Your task to perform on an android device: Open calendar and show me the third week of next month Image 0: 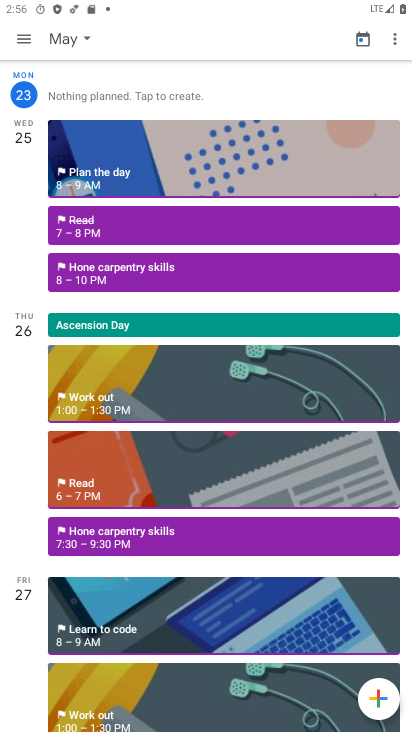
Step 0: press home button
Your task to perform on an android device: Open calendar and show me the third week of next month Image 1: 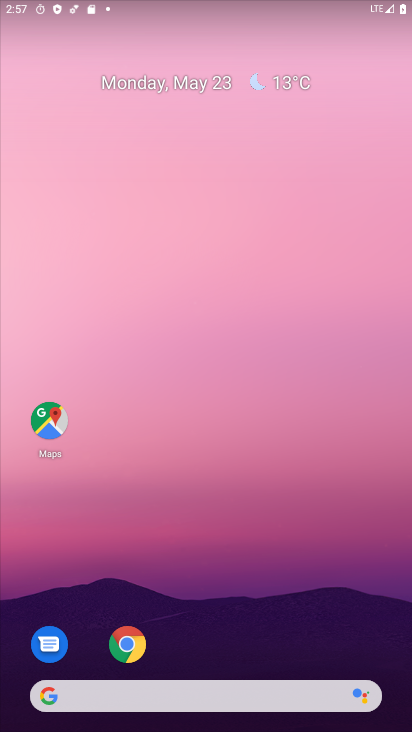
Step 1: drag from (175, 680) to (150, 167)
Your task to perform on an android device: Open calendar and show me the third week of next month Image 2: 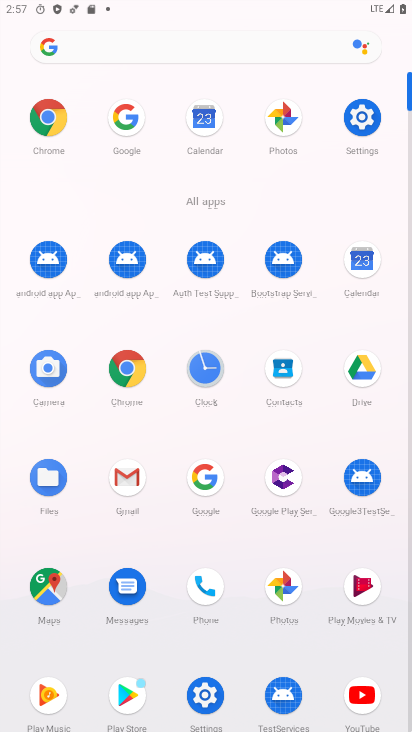
Step 2: click (363, 266)
Your task to perform on an android device: Open calendar and show me the third week of next month Image 3: 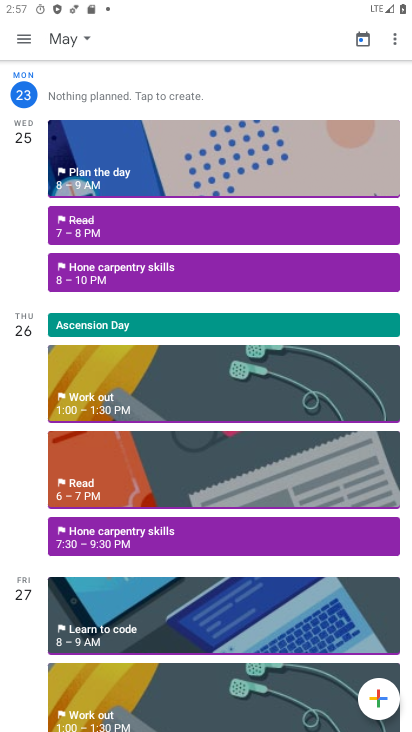
Step 3: click (25, 43)
Your task to perform on an android device: Open calendar and show me the third week of next month Image 4: 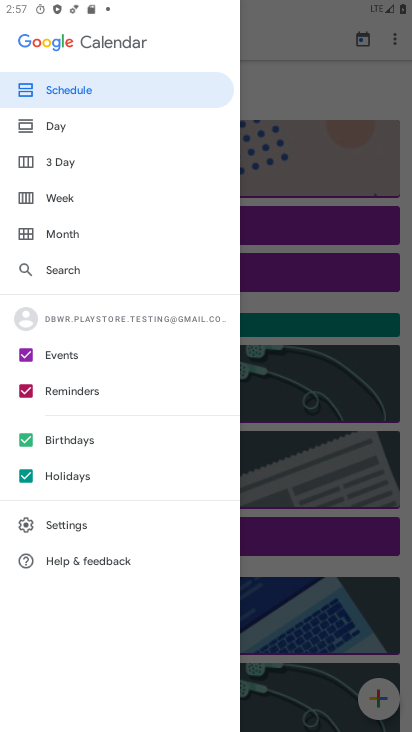
Step 4: click (55, 194)
Your task to perform on an android device: Open calendar and show me the third week of next month Image 5: 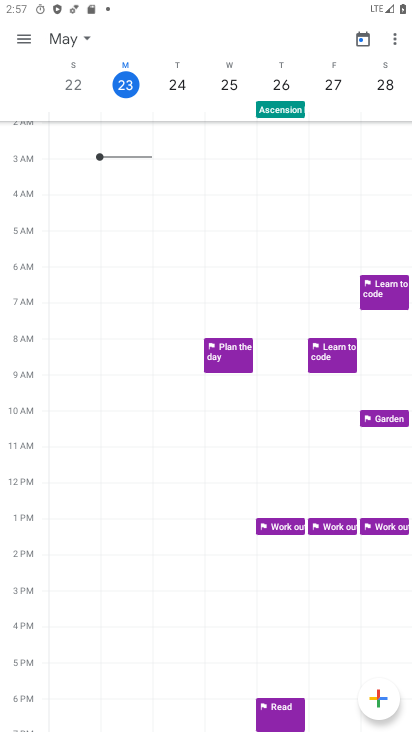
Step 5: task complete